Your task to perform on an android device: turn on location history Image 0: 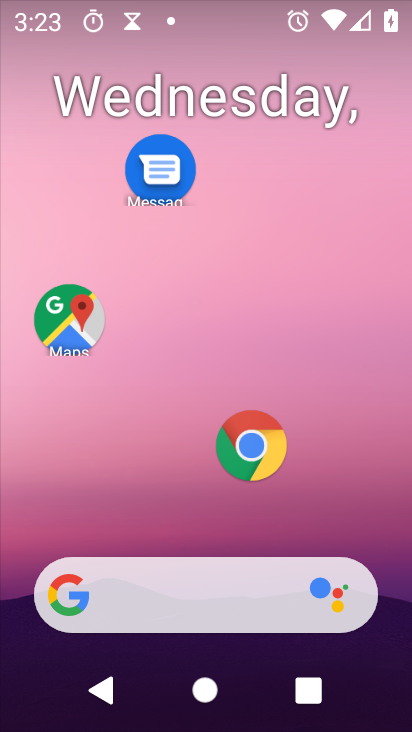
Step 0: drag from (64, 513) to (224, 210)
Your task to perform on an android device: turn on location history Image 1: 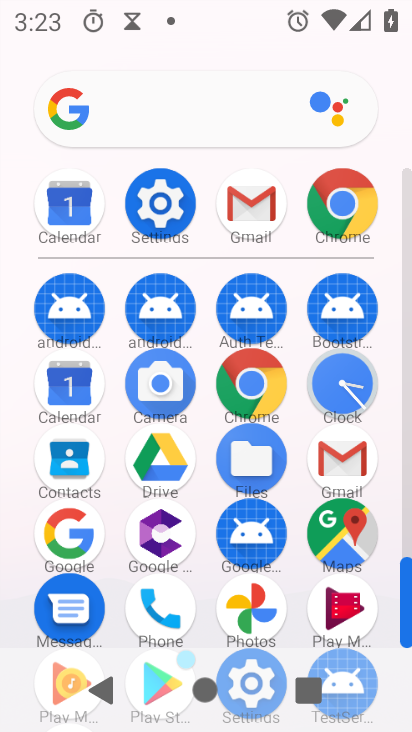
Step 1: click (168, 217)
Your task to perform on an android device: turn on location history Image 2: 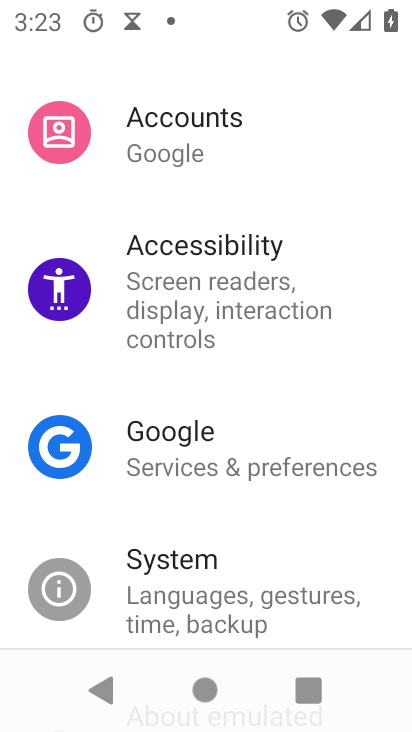
Step 2: drag from (236, 153) to (179, 600)
Your task to perform on an android device: turn on location history Image 3: 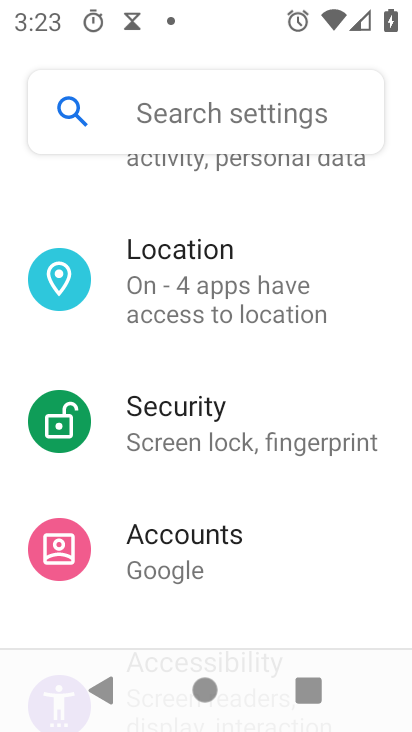
Step 3: click (245, 284)
Your task to perform on an android device: turn on location history Image 4: 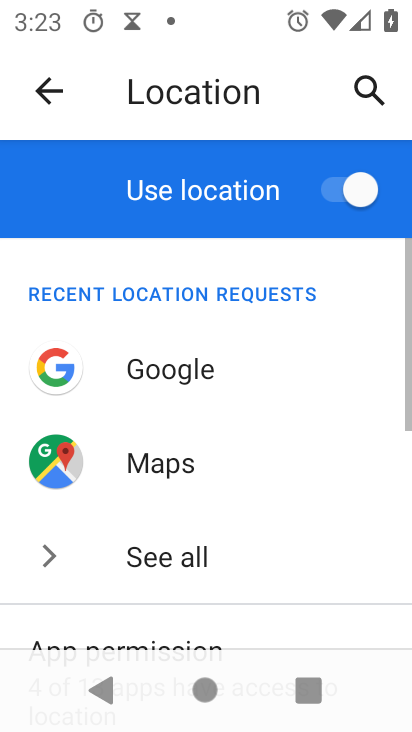
Step 4: drag from (10, 316) to (163, 333)
Your task to perform on an android device: turn on location history Image 5: 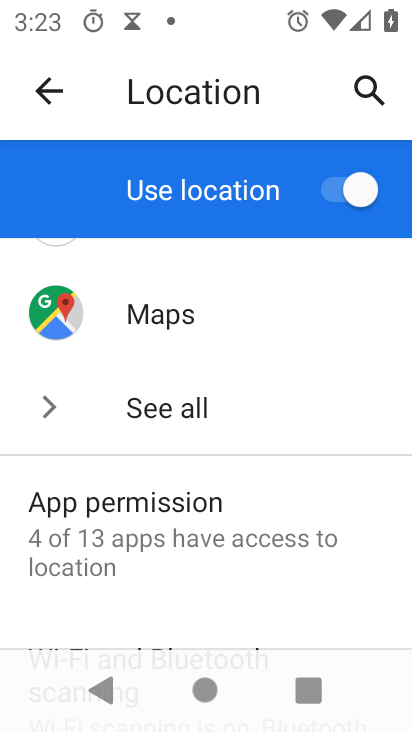
Step 5: drag from (103, 405) to (213, 193)
Your task to perform on an android device: turn on location history Image 6: 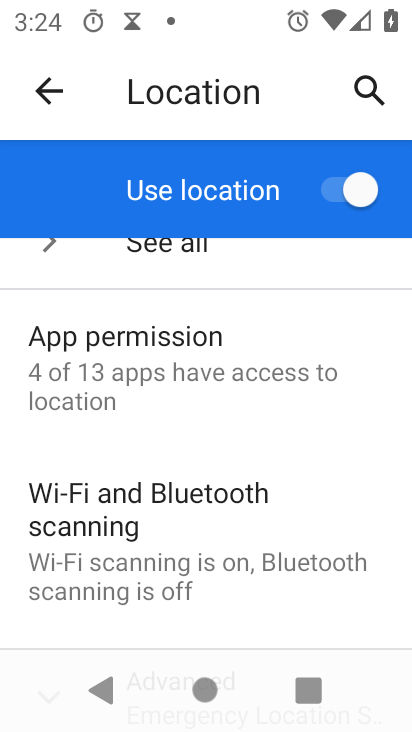
Step 6: drag from (17, 368) to (70, 198)
Your task to perform on an android device: turn on location history Image 7: 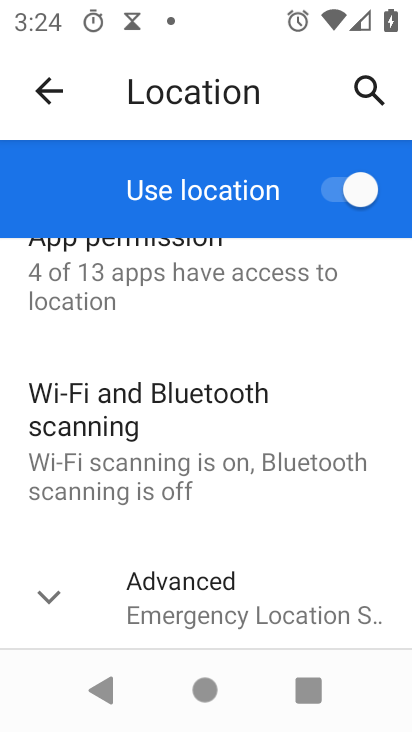
Step 7: click (182, 606)
Your task to perform on an android device: turn on location history Image 8: 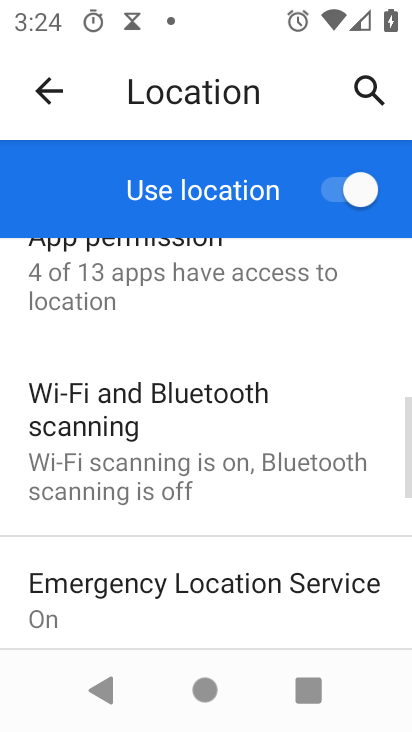
Step 8: drag from (57, 487) to (277, 197)
Your task to perform on an android device: turn on location history Image 9: 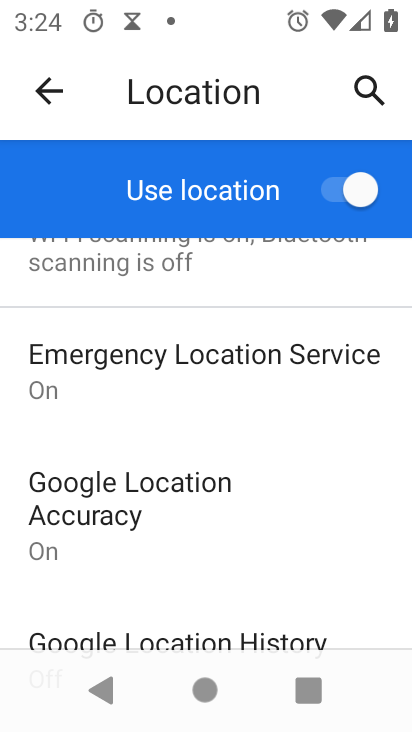
Step 9: click (102, 523)
Your task to perform on an android device: turn on location history Image 10: 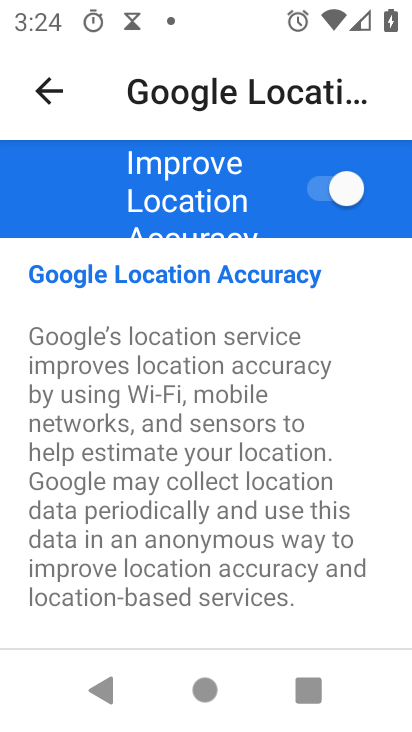
Step 10: task complete